Your task to perform on an android device: open wifi settings Image 0: 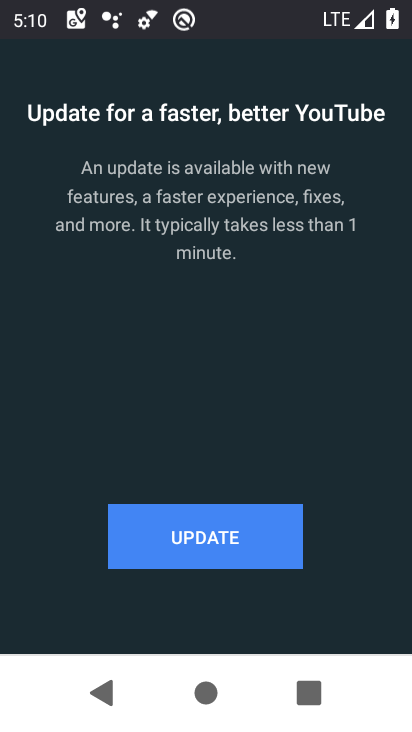
Step 0: click (217, 536)
Your task to perform on an android device: open wifi settings Image 1: 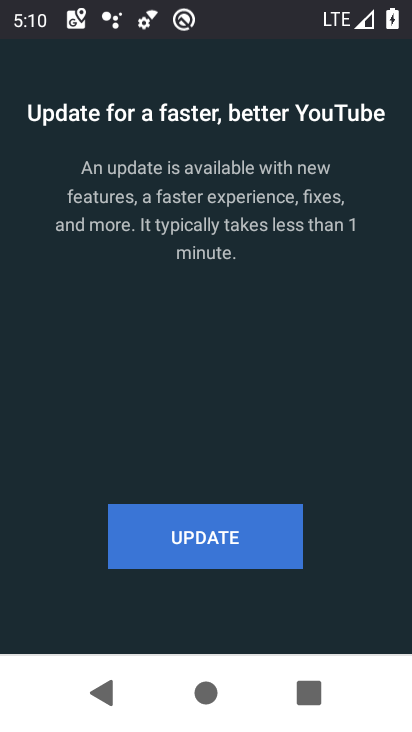
Step 1: click (215, 536)
Your task to perform on an android device: open wifi settings Image 2: 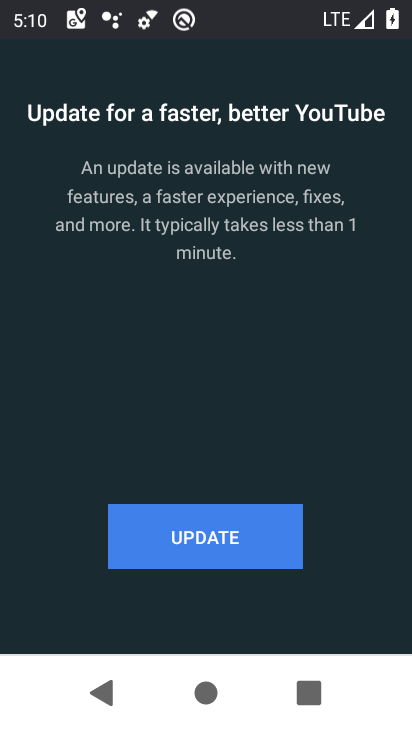
Step 2: click (217, 533)
Your task to perform on an android device: open wifi settings Image 3: 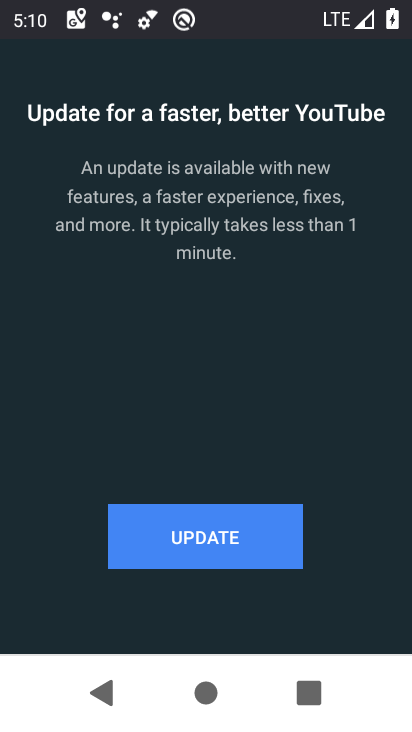
Step 3: click (217, 529)
Your task to perform on an android device: open wifi settings Image 4: 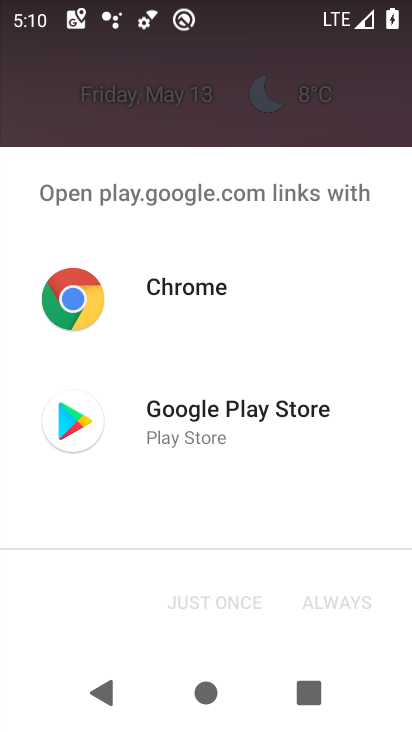
Step 4: click (217, 528)
Your task to perform on an android device: open wifi settings Image 5: 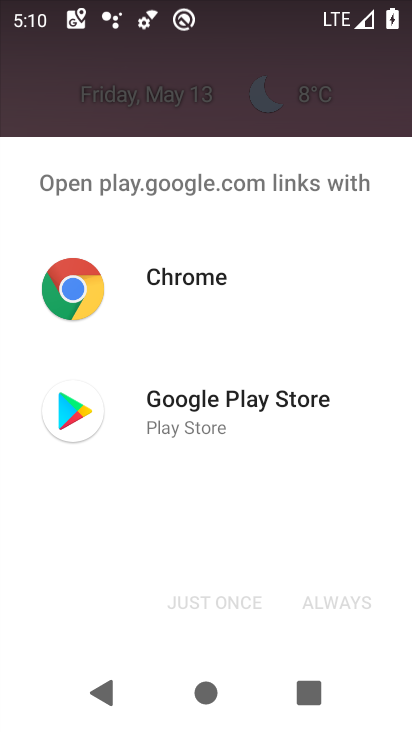
Step 5: press back button
Your task to perform on an android device: open wifi settings Image 6: 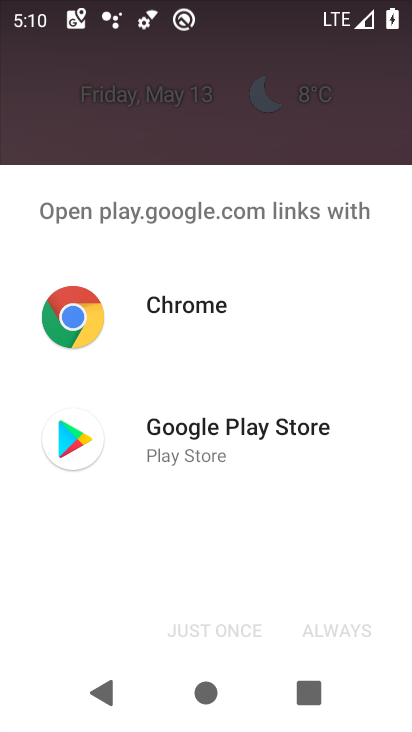
Step 6: press back button
Your task to perform on an android device: open wifi settings Image 7: 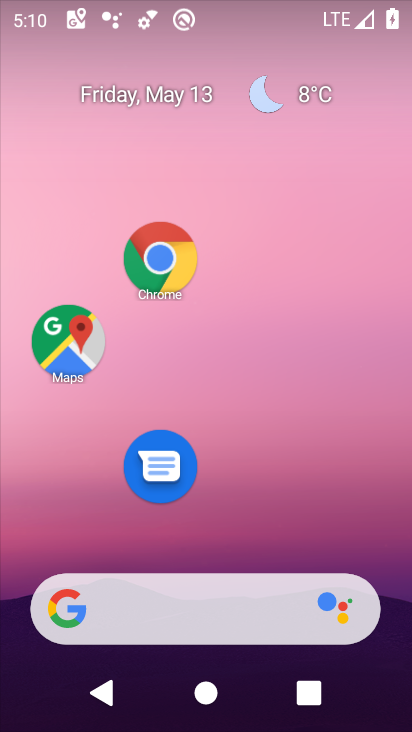
Step 7: press back button
Your task to perform on an android device: open wifi settings Image 8: 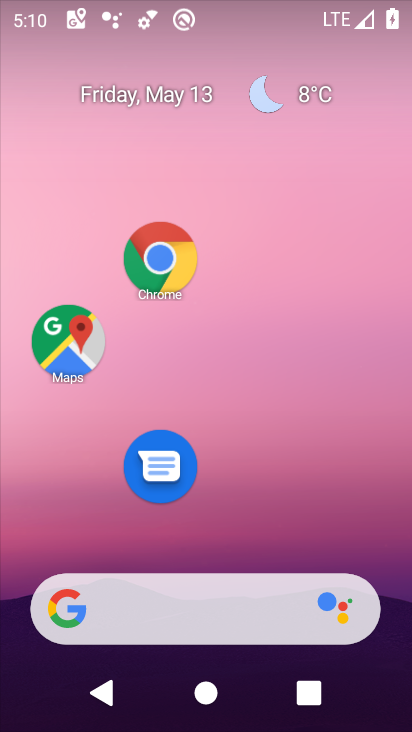
Step 8: drag from (274, 537) to (164, 172)
Your task to perform on an android device: open wifi settings Image 9: 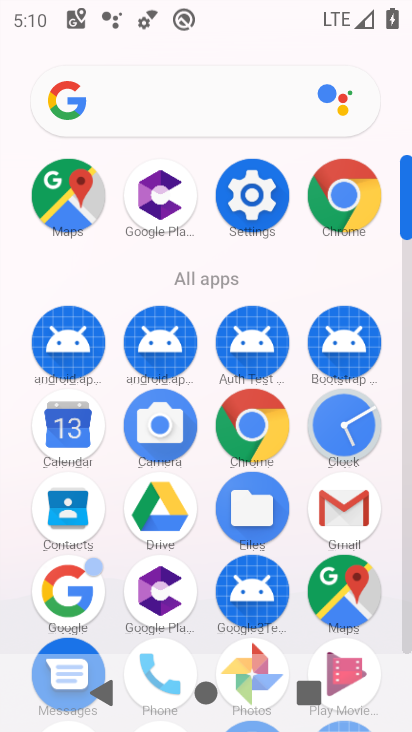
Step 9: drag from (254, 195) to (254, 229)
Your task to perform on an android device: open wifi settings Image 10: 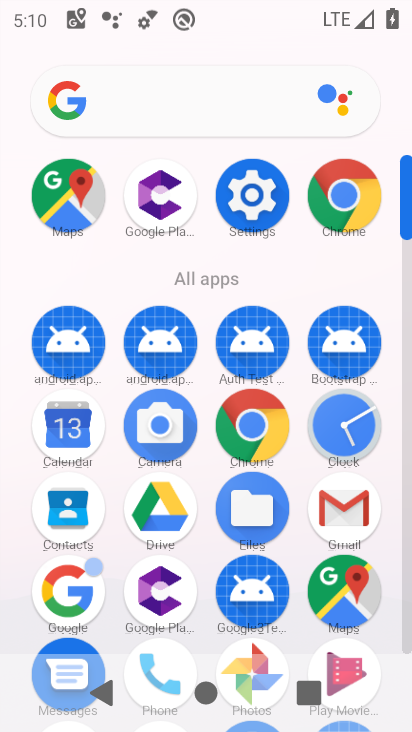
Step 10: click (254, 214)
Your task to perform on an android device: open wifi settings Image 11: 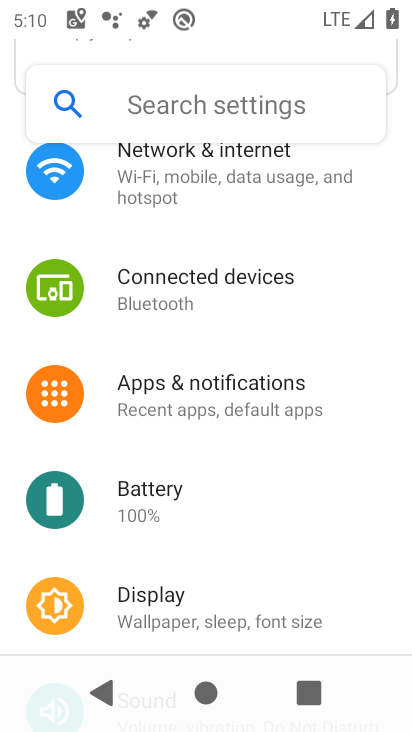
Step 11: click (196, 164)
Your task to perform on an android device: open wifi settings Image 12: 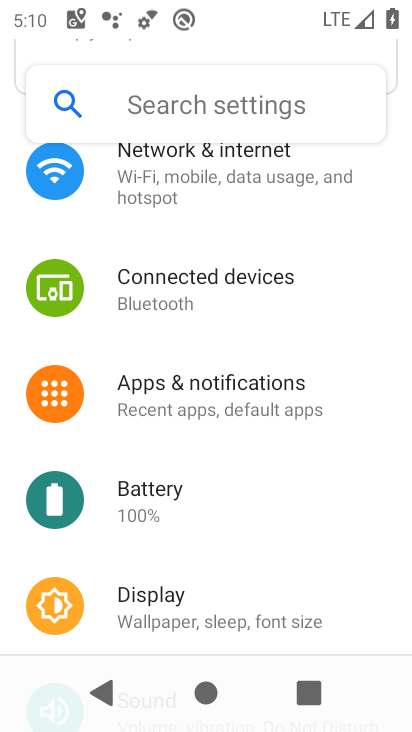
Step 12: click (198, 199)
Your task to perform on an android device: open wifi settings Image 13: 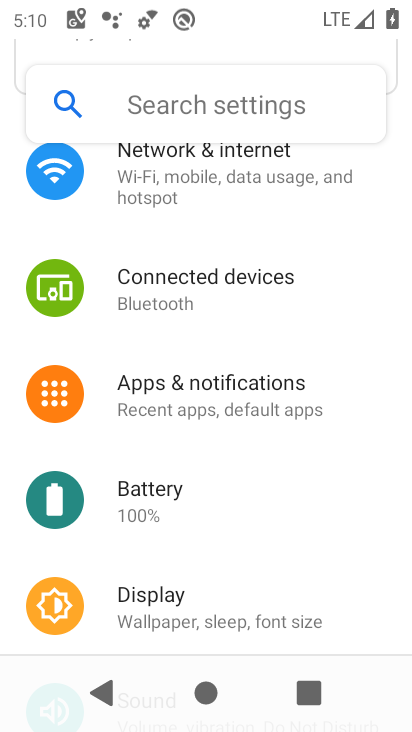
Step 13: click (184, 181)
Your task to perform on an android device: open wifi settings Image 14: 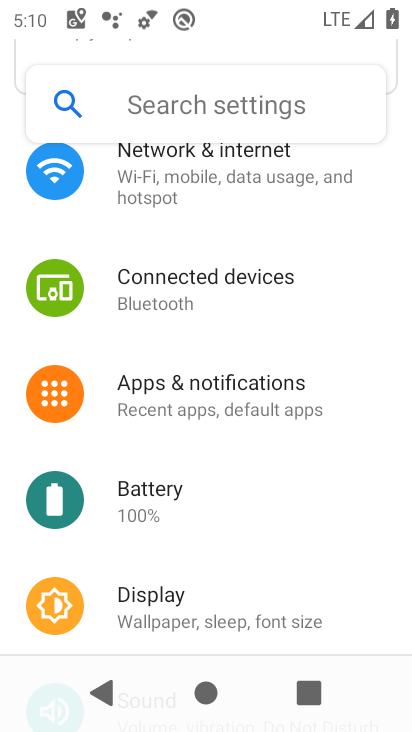
Step 14: click (184, 181)
Your task to perform on an android device: open wifi settings Image 15: 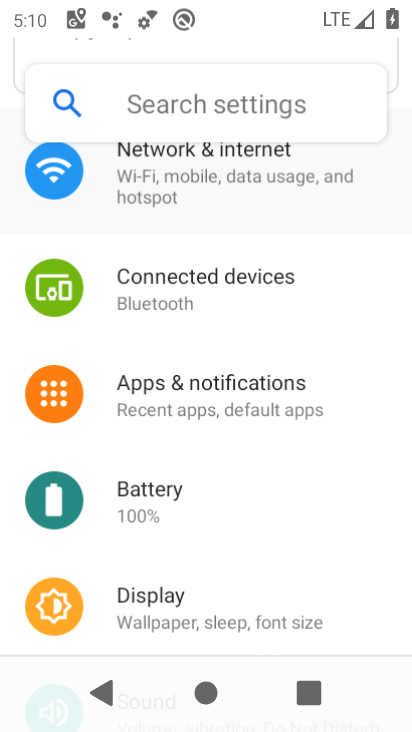
Step 15: click (187, 176)
Your task to perform on an android device: open wifi settings Image 16: 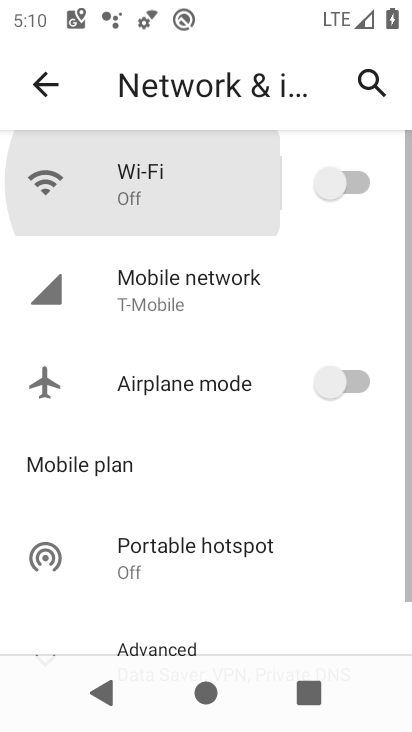
Step 16: click (176, 170)
Your task to perform on an android device: open wifi settings Image 17: 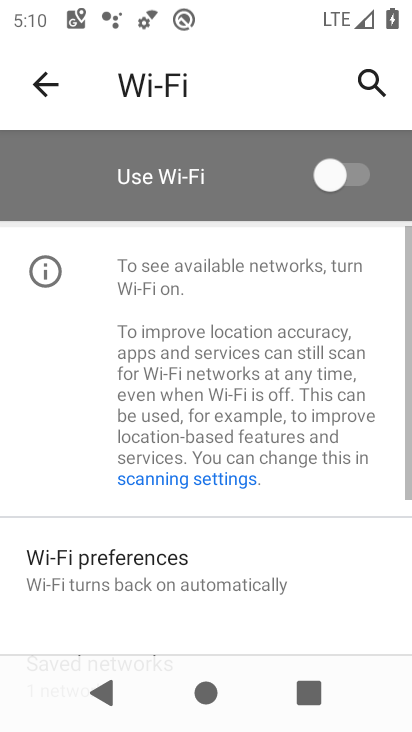
Step 17: click (324, 178)
Your task to perform on an android device: open wifi settings Image 18: 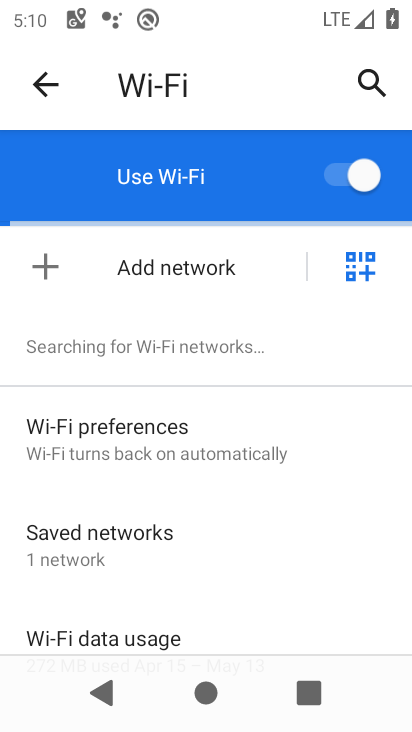
Step 18: task complete